Your task to perform on an android device: change the clock display to digital Image 0: 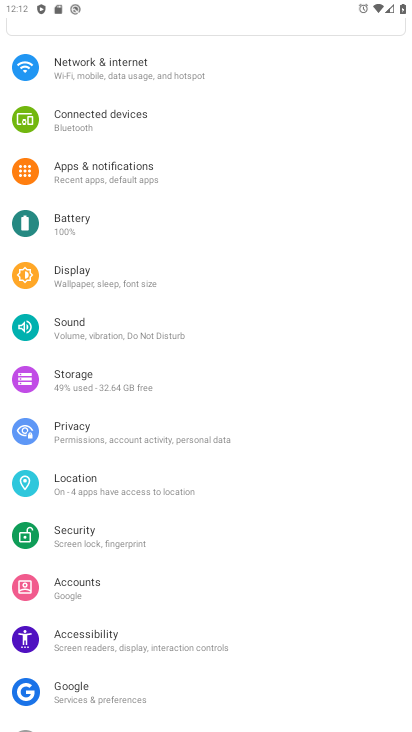
Step 0: press home button
Your task to perform on an android device: change the clock display to digital Image 1: 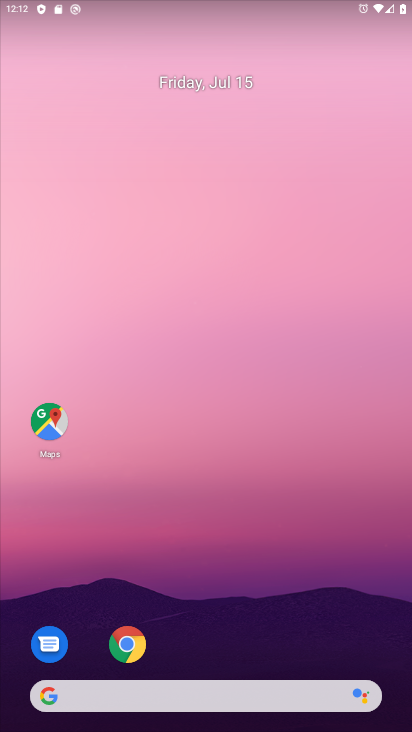
Step 1: drag from (214, 631) to (223, 43)
Your task to perform on an android device: change the clock display to digital Image 2: 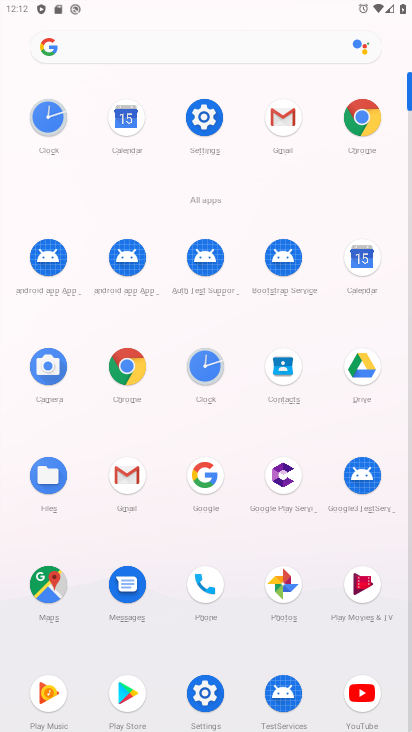
Step 2: click (211, 362)
Your task to perform on an android device: change the clock display to digital Image 3: 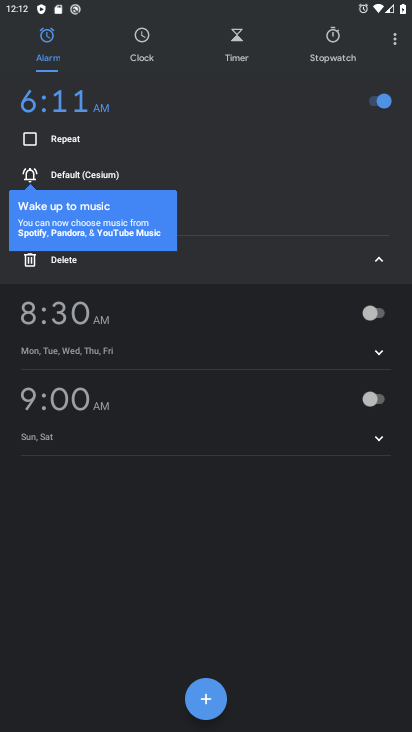
Step 3: click (396, 43)
Your task to perform on an android device: change the clock display to digital Image 4: 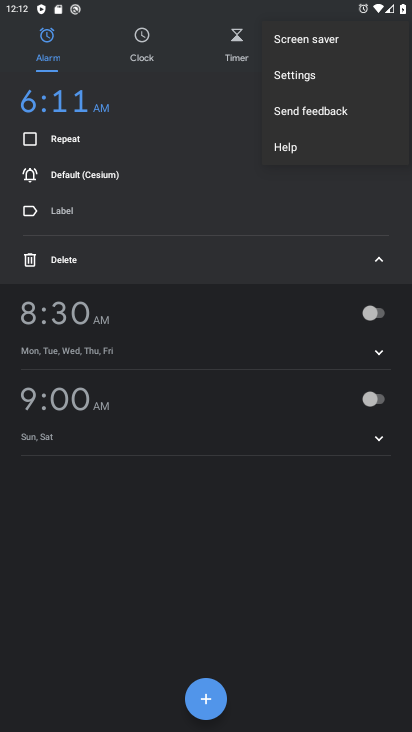
Step 4: click (302, 71)
Your task to perform on an android device: change the clock display to digital Image 5: 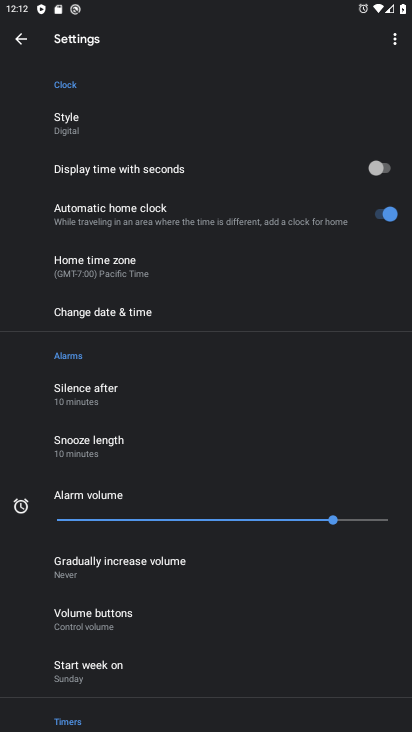
Step 5: task complete